Your task to perform on an android device: Open Android settings Image 0: 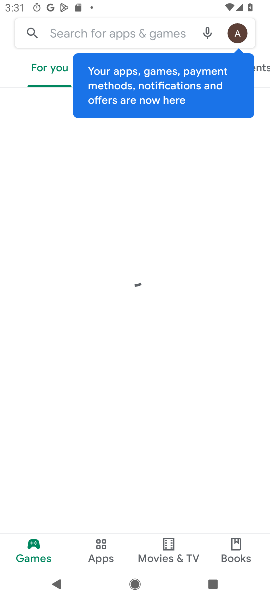
Step 0: press home button
Your task to perform on an android device: Open Android settings Image 1: 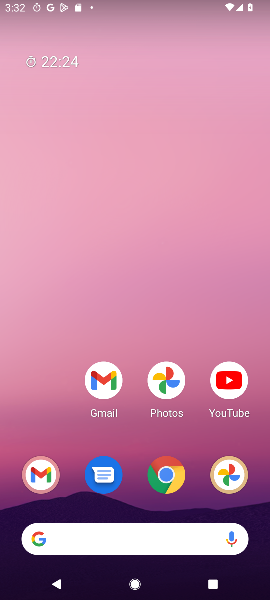
Step 1: drag from (54, 412) to (57, 211)
Your task to perform on an android device: Open Android settings Image 2: 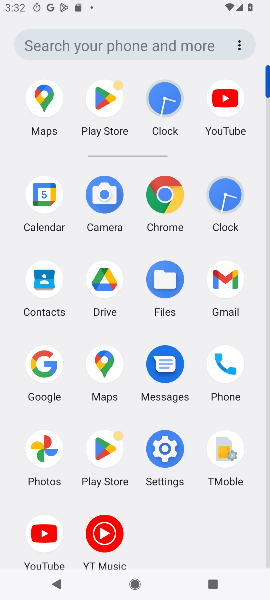
Step 2: click (171, 447)
Your task to perform on an android device: Open Android settings Image 3: 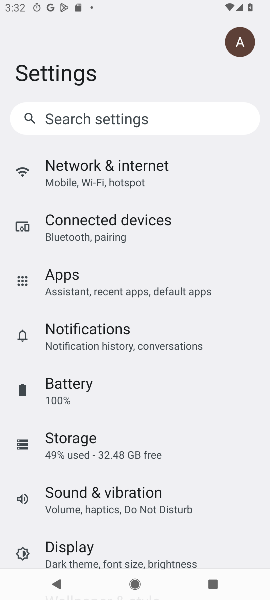
Step 3: drag from (221, 441) to (222, 391)
Your task to perform on an android device: Open Android settings Image 4: 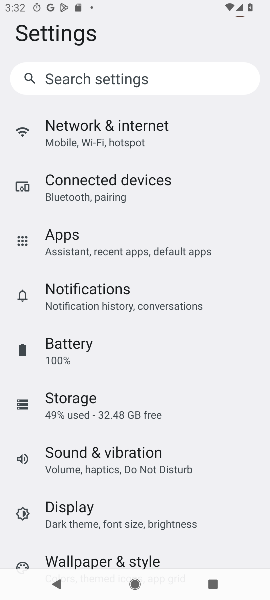
Step 4: drag from (223, 491) to (234, 418)
Your task to perform on an android device: Open Android settings Image 5: 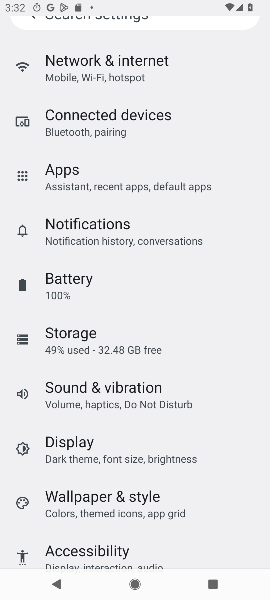
Step 5: drag from (233, 498) to (233, 402)
Your task to perform on an android device: Open Android settings Image 6: 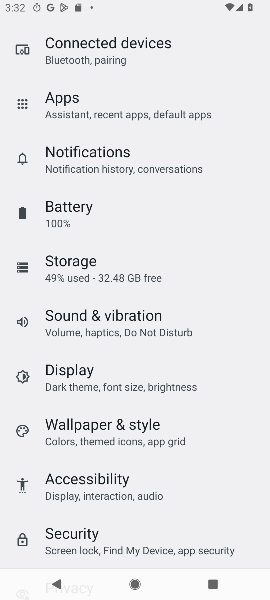
Step 6: drag from (233, 499) to (233, 407)
Your task to perform on an android device: Open Android settings Image 7: 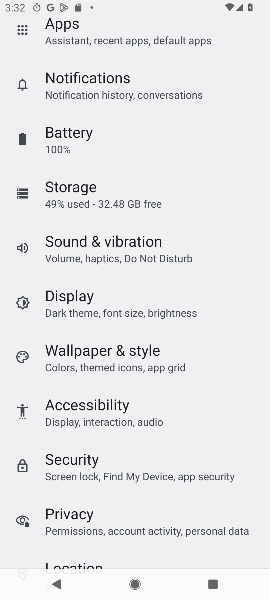
Step 7: drag from (226, 500) to (231, 394)
Your task to perform on an android device: Open Android settings Image 8: 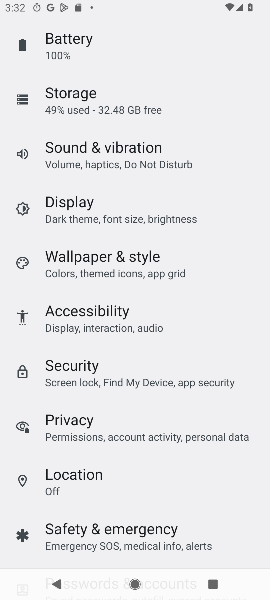
Step 8: drag from (218, 506) to (221, 405)
Your task to perform on an android device: Open Android settings Image 9: 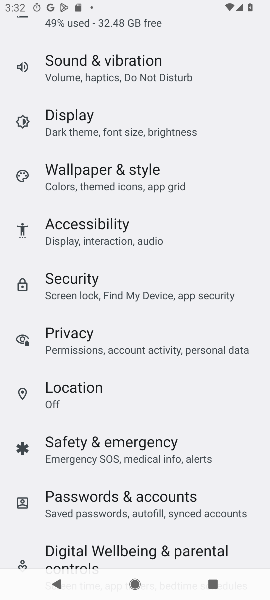
Step 9: drag from (231, 534) to (234, 437)
Your task to perform on an android device: Open Android settings Image 10: 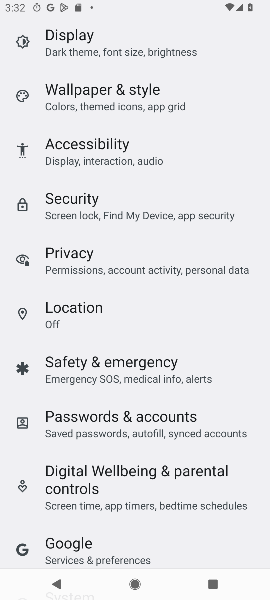
Step 10: drag from (226, 542) to (227, 416)
Your task to perform on an android device: Open Android settings Image 11: 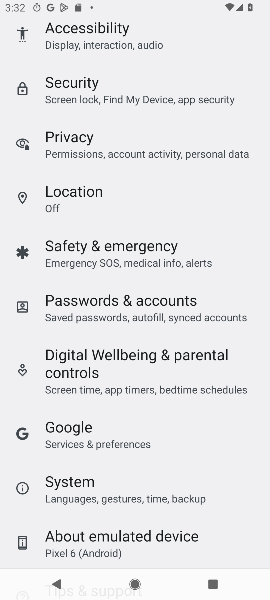
Step 11: drag from (231, 550) to (232, 425)
Your task to perform on an android device: Open Android settings Image 12: 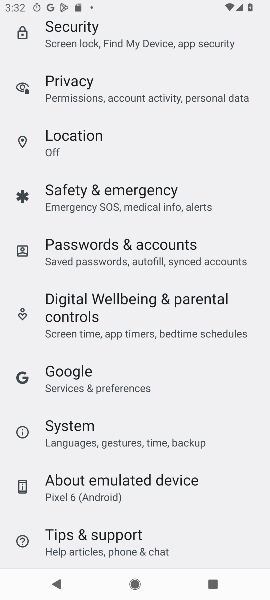
Step 12: click (182, 431)
Your task to perform on an android device: Open Android settings Image 13: 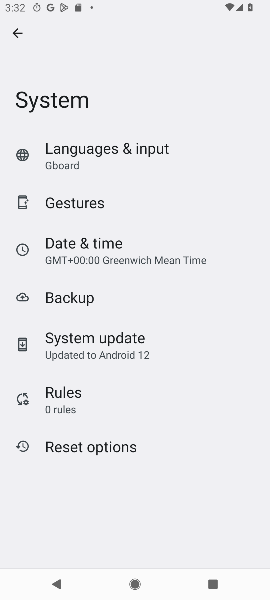
Step 13: task complete